Your task to perform on an android device: Go to Google maps Image 0: 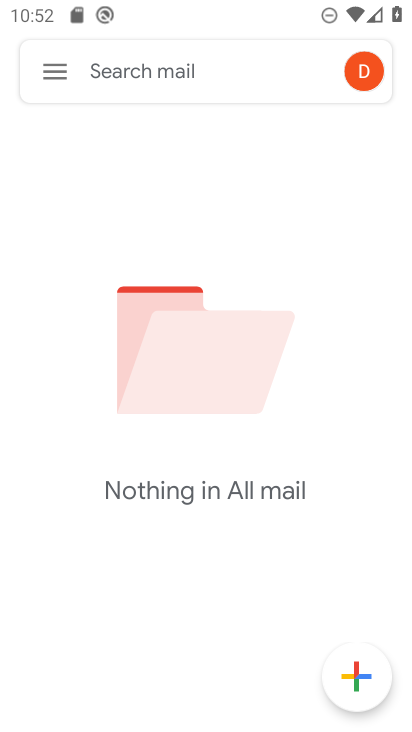
Step 0: press home button
Your task to perform on an android device: Go to Google maps Image 1: 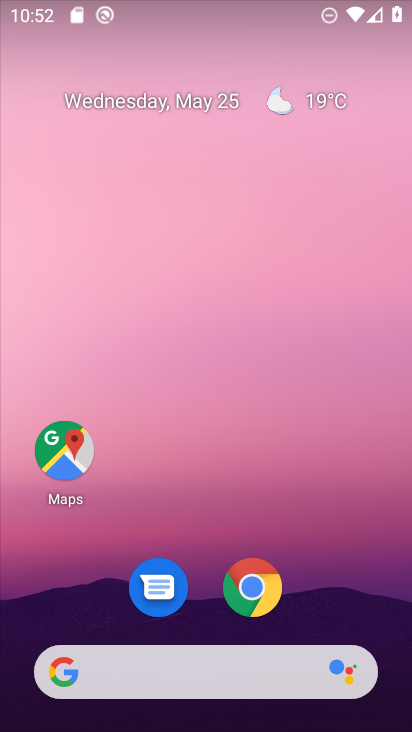
Step 1: click (67, 452)
Your task to perform on an android device: Go to Google maps Image 2: 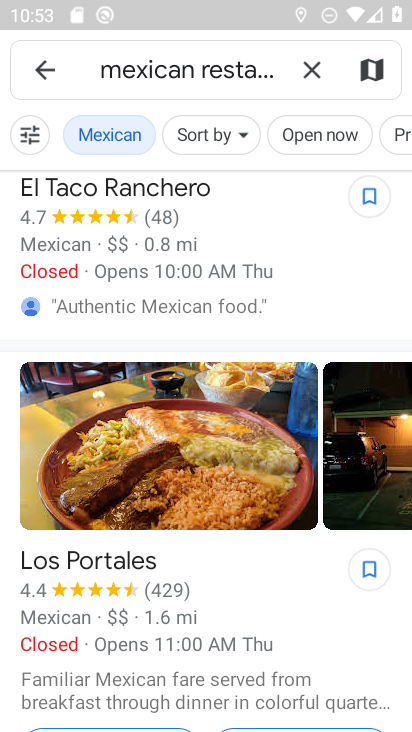
Step 2: click (304, 69)
Your task to perform on an android device: Go to Google maps Image 3: 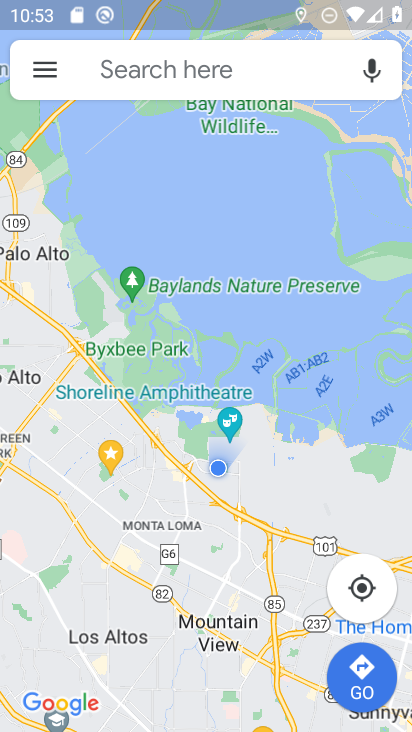
Step 3: task complete